Your task to perform on an android device: Open privacy settings Image 0: 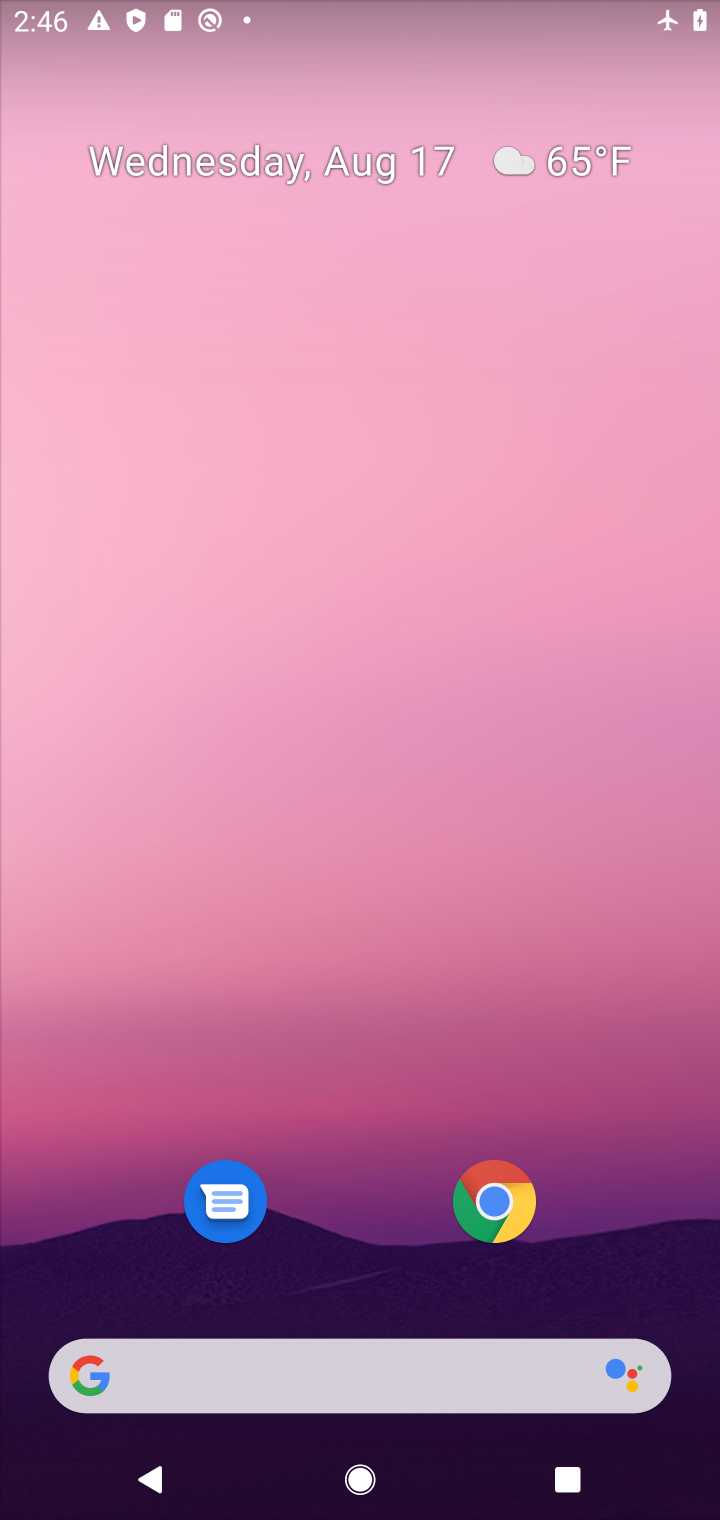
Step 0: drag from (387, 745) to (485, 189)
Your task to perform on an android device: Open privacy settings Image 1: 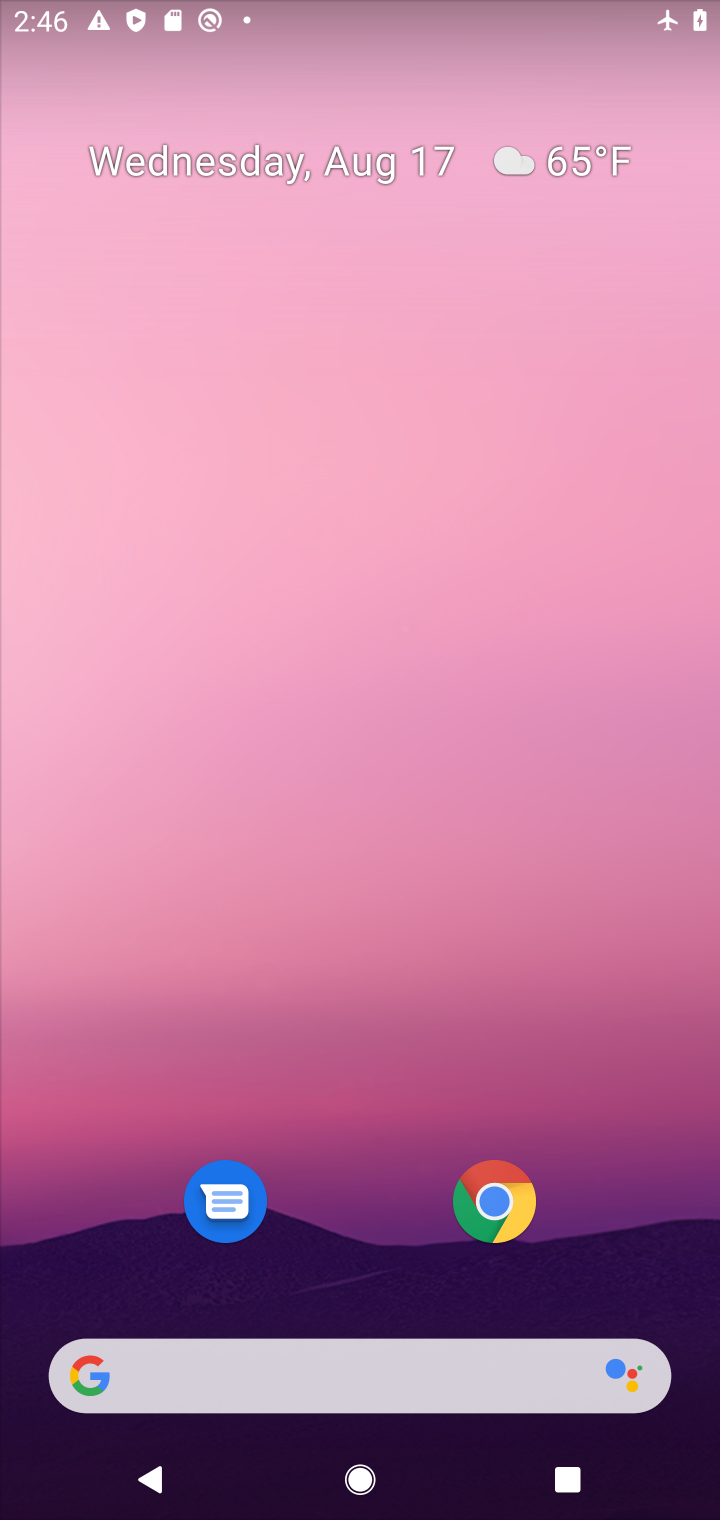
Step 1: drag from (280, 1316) to (623, 177)
Your task to perform on an android device: Open privacy settings Image 2: 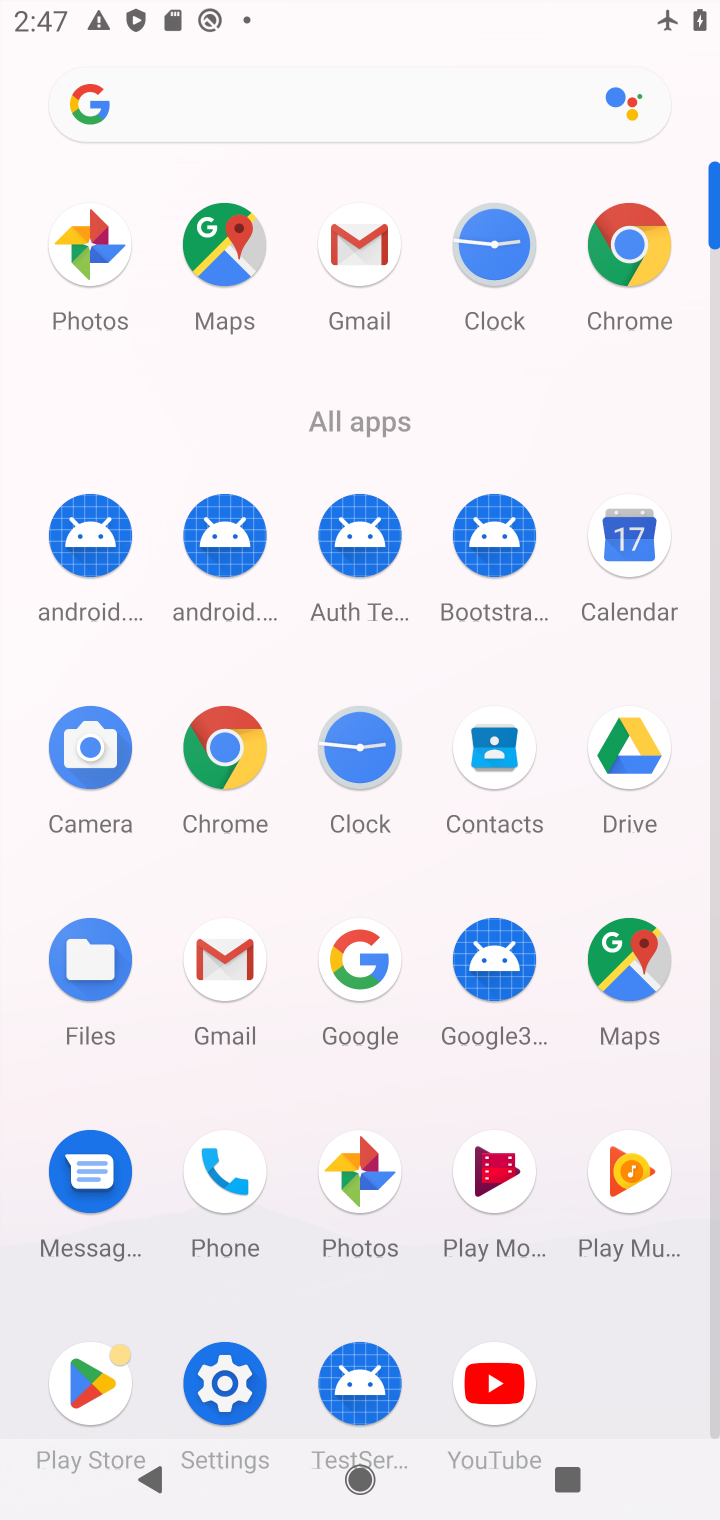
Step 2: click (207, 1368)
Your task to perform on an android device: Open privacy settings Image 3: 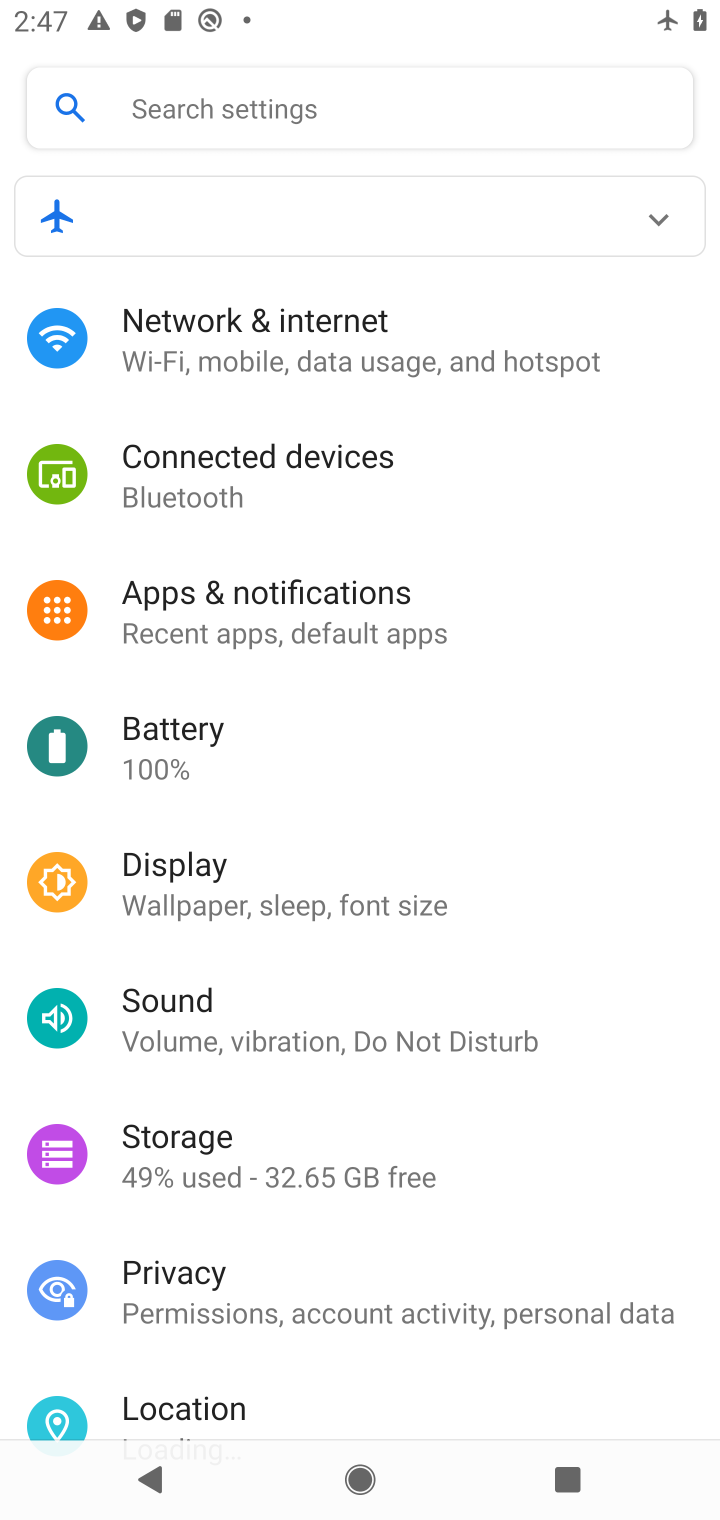
Step 3: click (245, 1299)
Your task to perform on an android device: Open privacy settings Image 4: 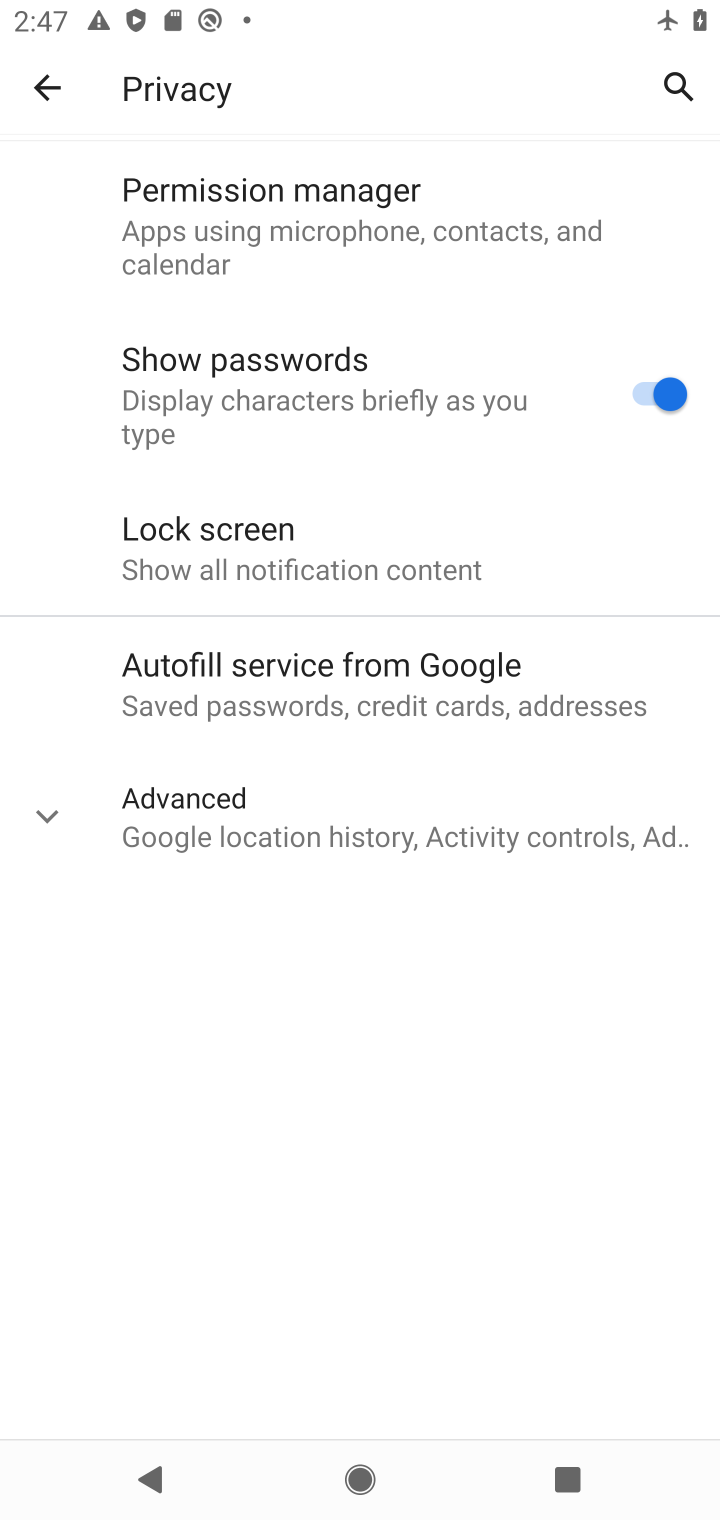
Step 4: task complete